Your task to perform on an android device: Search for flights from Barcelona to Mexico city Image 0: 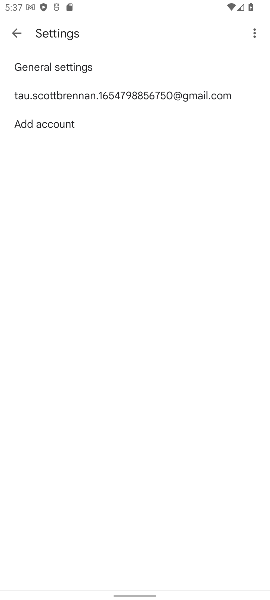
Step 0: press home button
Your task to perform on an android device: Search for flights from Barcelona to Mexico city Image 1: 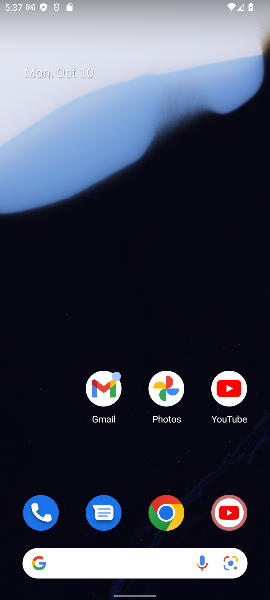
Step 1: drag from (127, 599) to (18, 376)
Your task to perform on an android device: Search for flights from Barcelona to Mexico city Image 2: 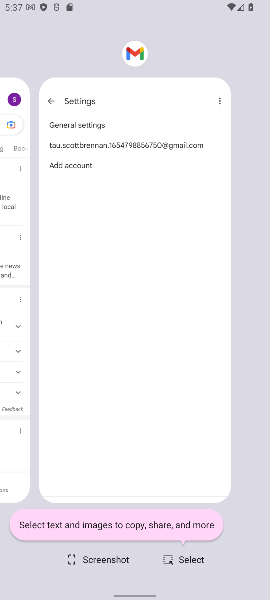
Step 2: press home button
Your task to perform on an android device: Search for flights from Barcelona to Mexico city Image 3: 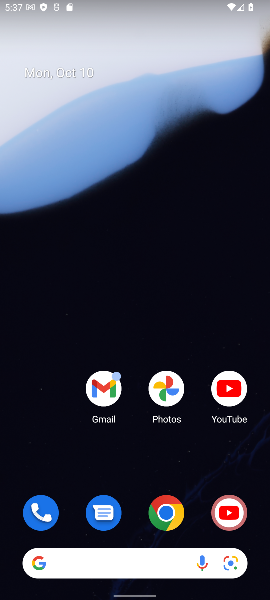
Step 3: click (132, 560)
Your task to perform on an android device: Search for flights from Barcelona to Mexico city Image 4: 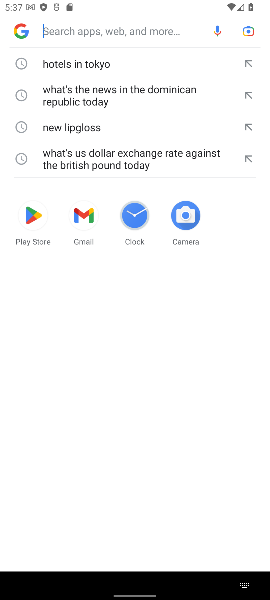
Step 4: type " flights from Barcelona to Mexico city"
Your task to perform on an android device: Search for flights from Barcelona to Mexico city Image 5: 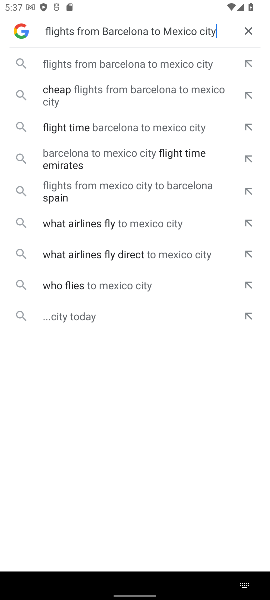
Step 5: click (115, 67)
Your task to perform on an android device: Search for flights from Barcelona to Mexico city Image 6: 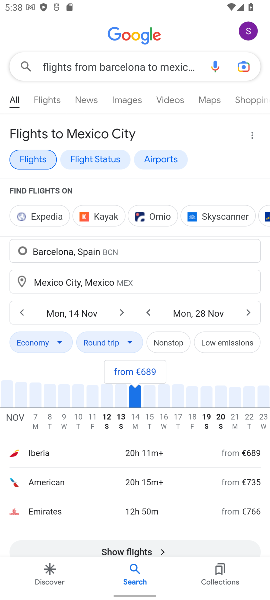
Step 6: task complete